Your task to perform on an android device: Open the calendar and show me this week's events Image 0: 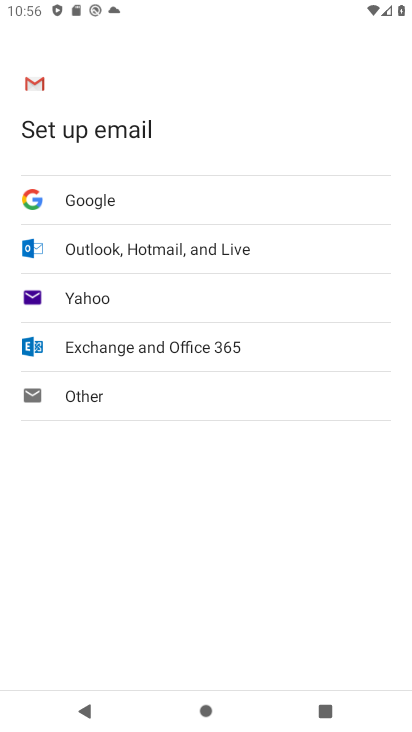
Step 0: press home button
Your task to perform on an android device: Open the calendar and show me this week's events Image 1: 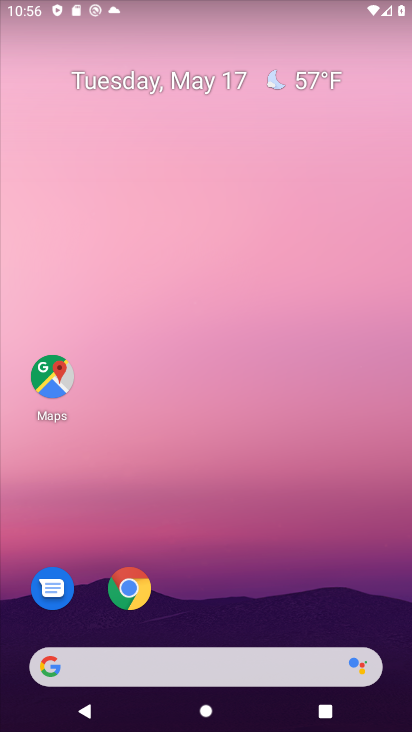
Step 1: drag from (267, 591) to (246, 174)
Your task to perform on an android device: Open the calendar and show me this week's events Image 2: 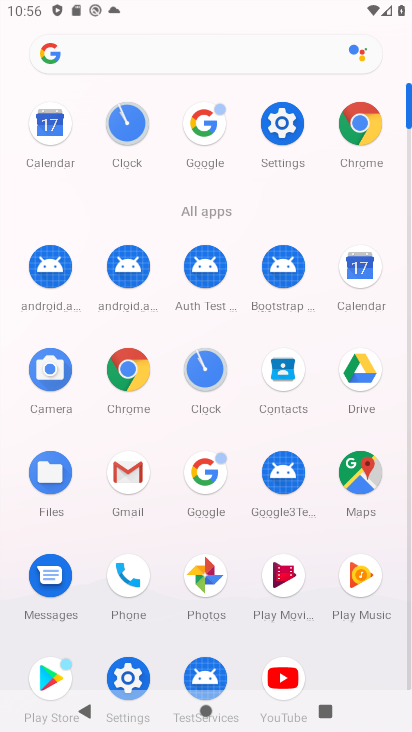
Step 2: click (366, 284)
Your task to perform on an android device: Open the calendar and show me this week's events Image 3: 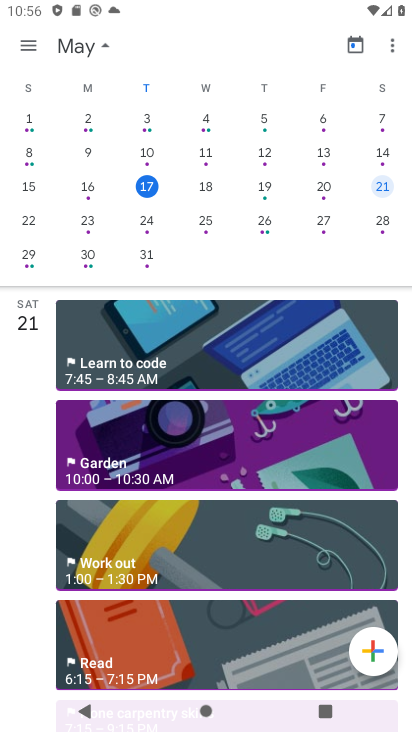
Step 3: click (201, 185)
Your task to perform on an android device: Open the calendar and show me this week's events Image 4: 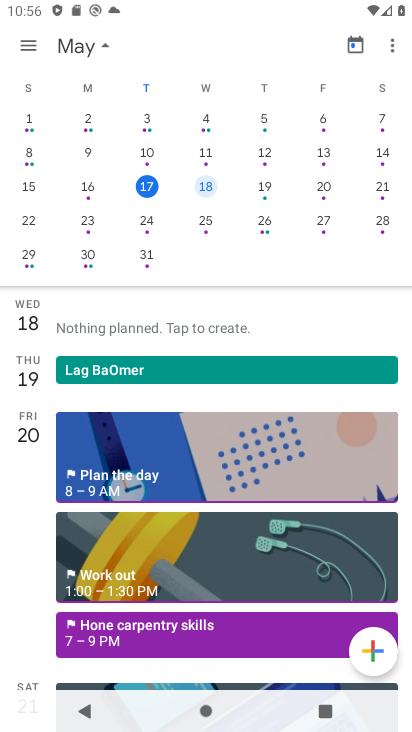
Step 4: click (274, 185)
Your task to perform on an android device: Open the calendar and show me this week's events Image 5: 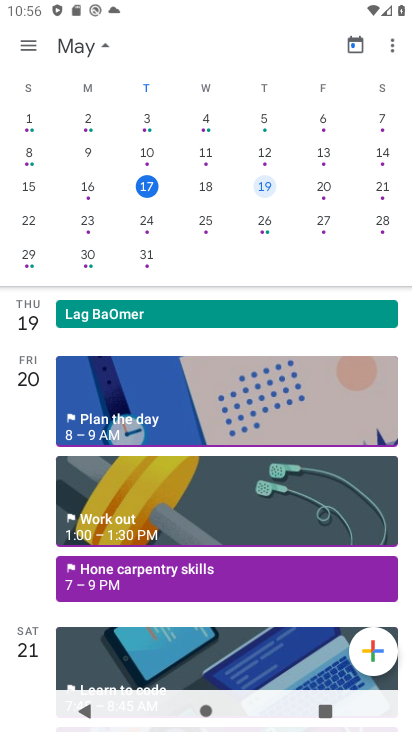
Step 5: click (324, 185)
Your task to perform on an android device: Open the calendar and show me this week's events Image 6: 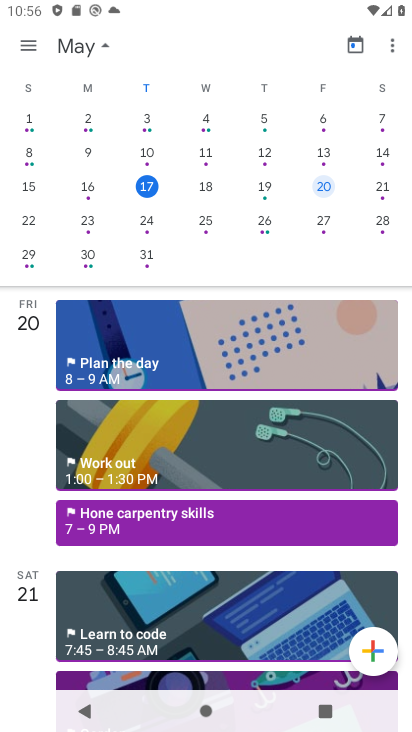
Step 6: click (403, 181)
Your task to perform on an android device: Open the calendar and show me this week's events Image 7: 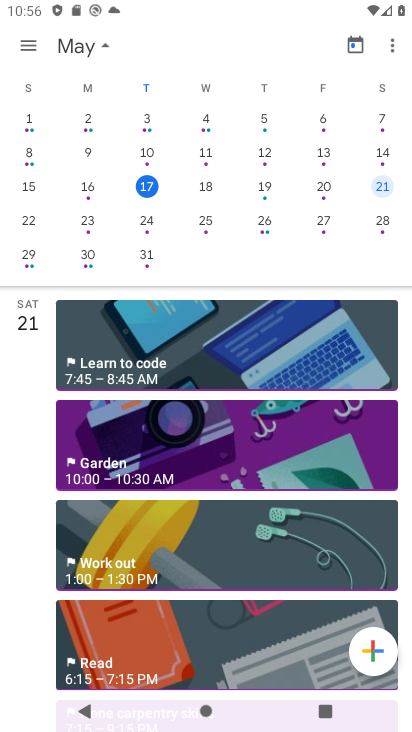
Step 7: click (392, 195)
Your task to perform on an android device: Open the calendar and show me this week's events Image 8: 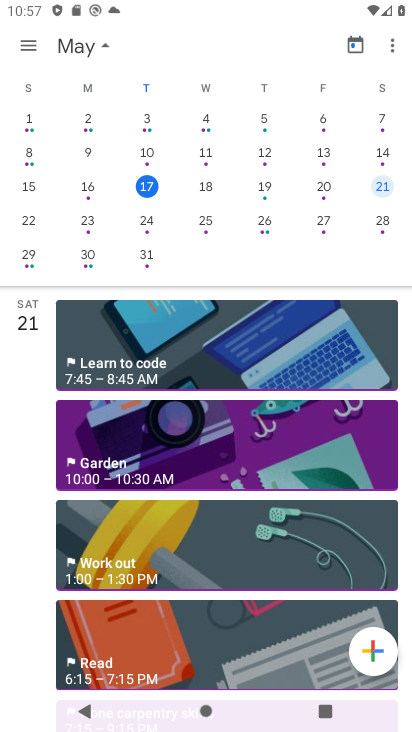
Step 8: task complete